Your task to perform on an android device: turn off sleep mode Image 0: 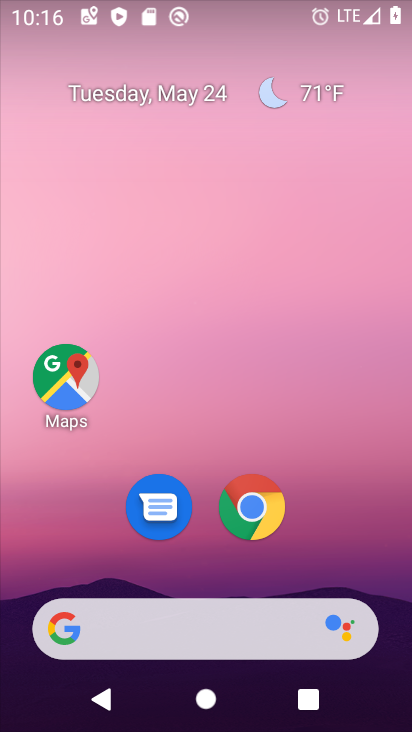
Step 0: drag from (251, 657) to (253, 243)
Your task to perform on an android device: turn off sleep mode Image 1: 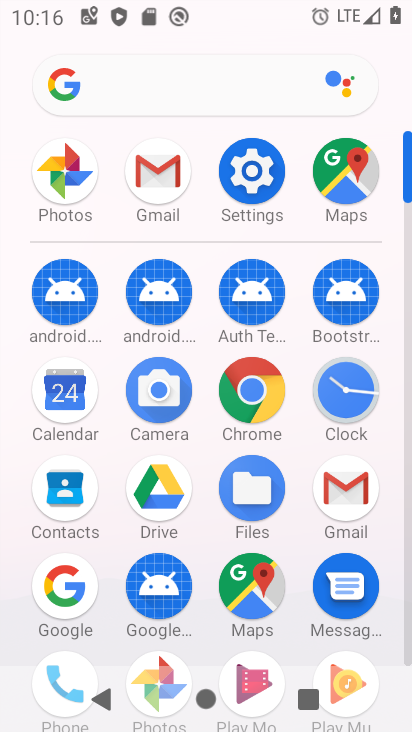
Step 1: click (259, 171)
Your task to perform on an android device: turn off sleep mode Image 2: 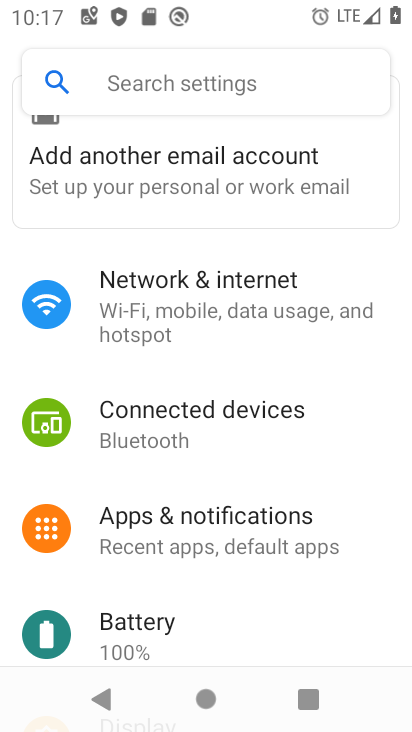
Step 2: drag from (245, 625) to (245, 255)
Your task to perform on an android device: turn off sleep mode Image 3: 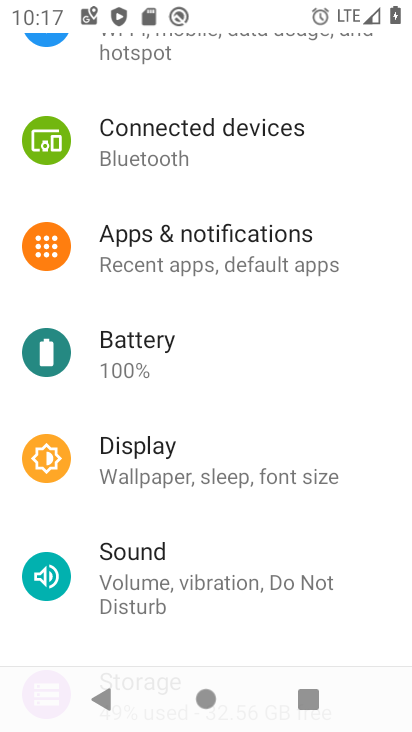
Step 3: drag from (225, 660) to (230, 206)
Your task to perform on an android device: turn off sleep mode Image 4: 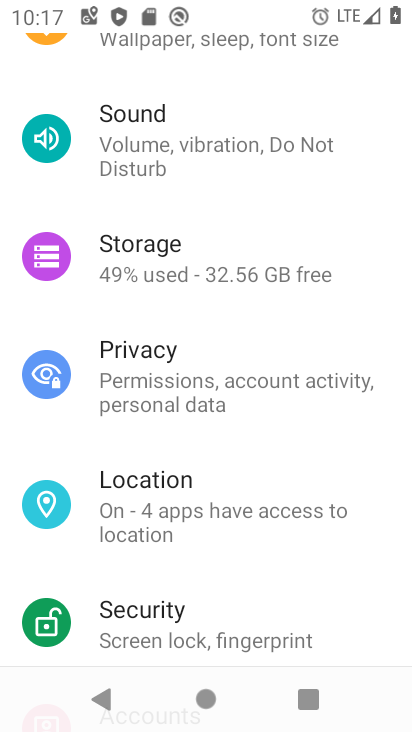
Step 4: drag from (208, 622) to (222, 177)
Your task to perform on an android device: turn off sleep mode Image 5: 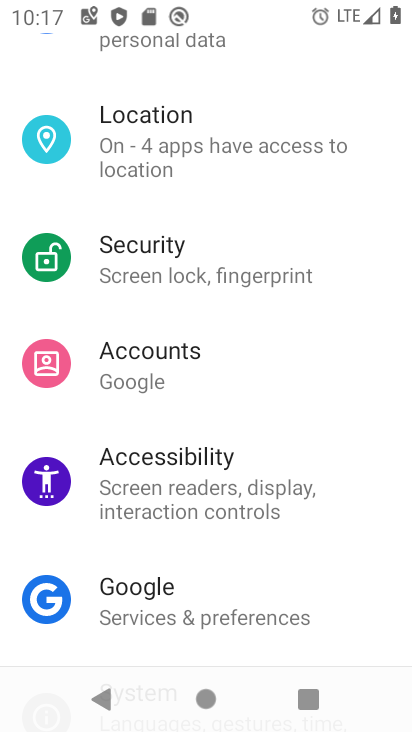
Step 5: drag from (255, 623) to (272, 234)
Your task to perform on an android device: turn off sleep mode Image 6: 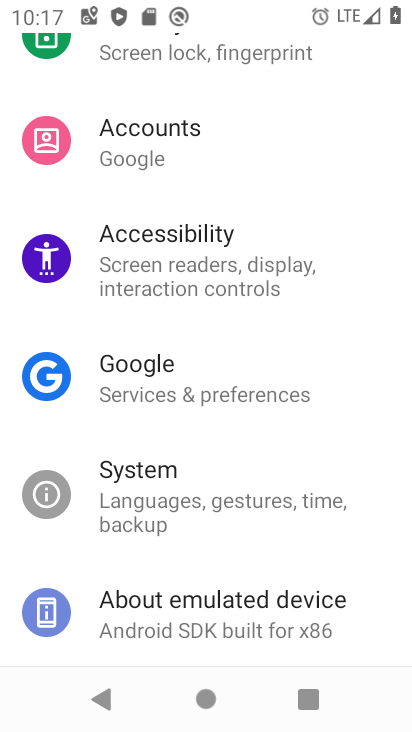
Step 6: click (229, 199)
Your task to perform on an android device: turn off sleep mode Image 7: 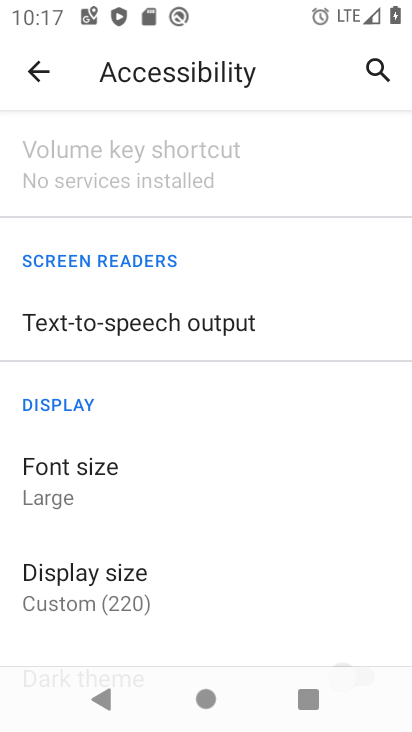
Step 7: task complete